Your task to perform on an android device: Open notification settings Image 0: 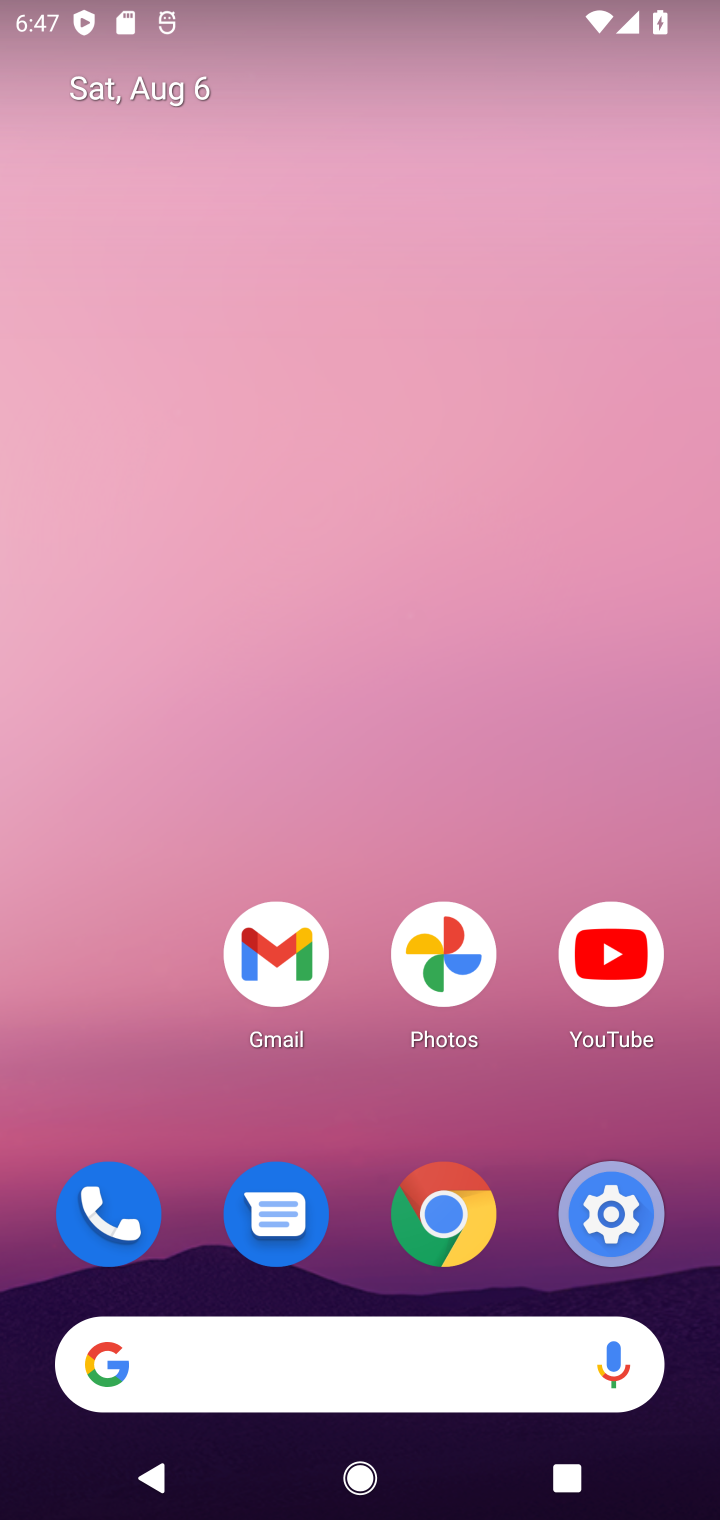
Step 0: drag from (344, 1118) to (392, 2)
Your task to perform on an android device: Open notification settings Image 1: 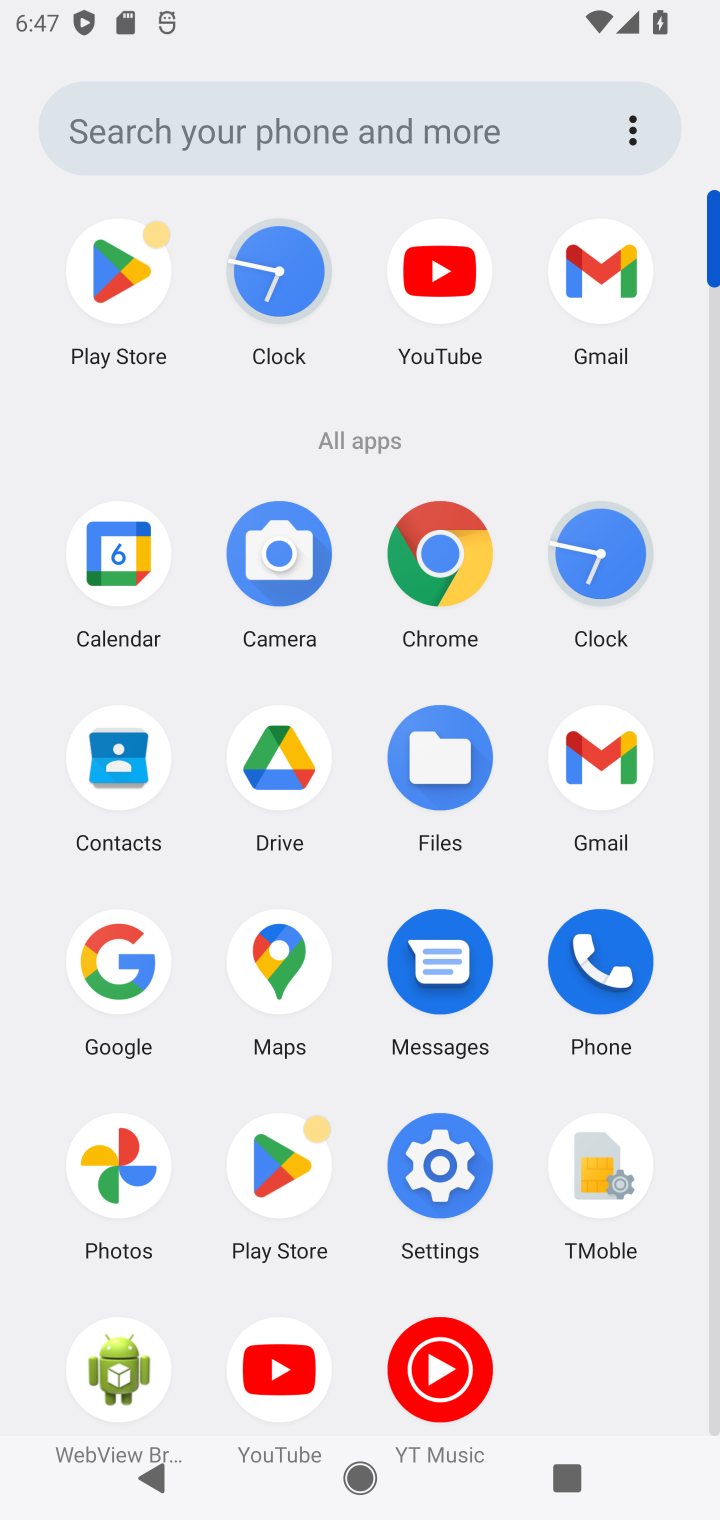
Step 1: click (429, 1152)
Your task to perform on an android device: Open notification settings Image 2: 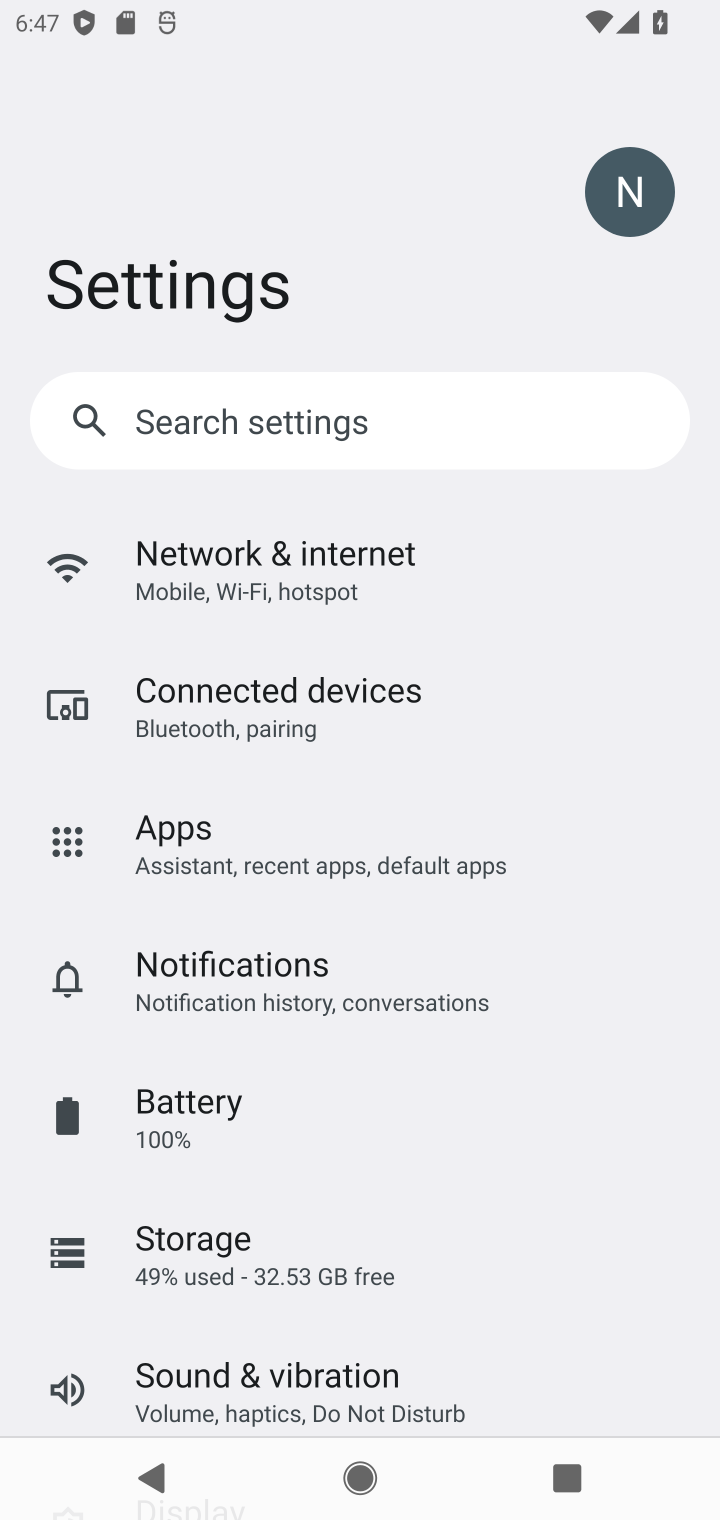
Step 2: click (240, 980)
Your task to perform on an android device: Open notification settings Image 3: 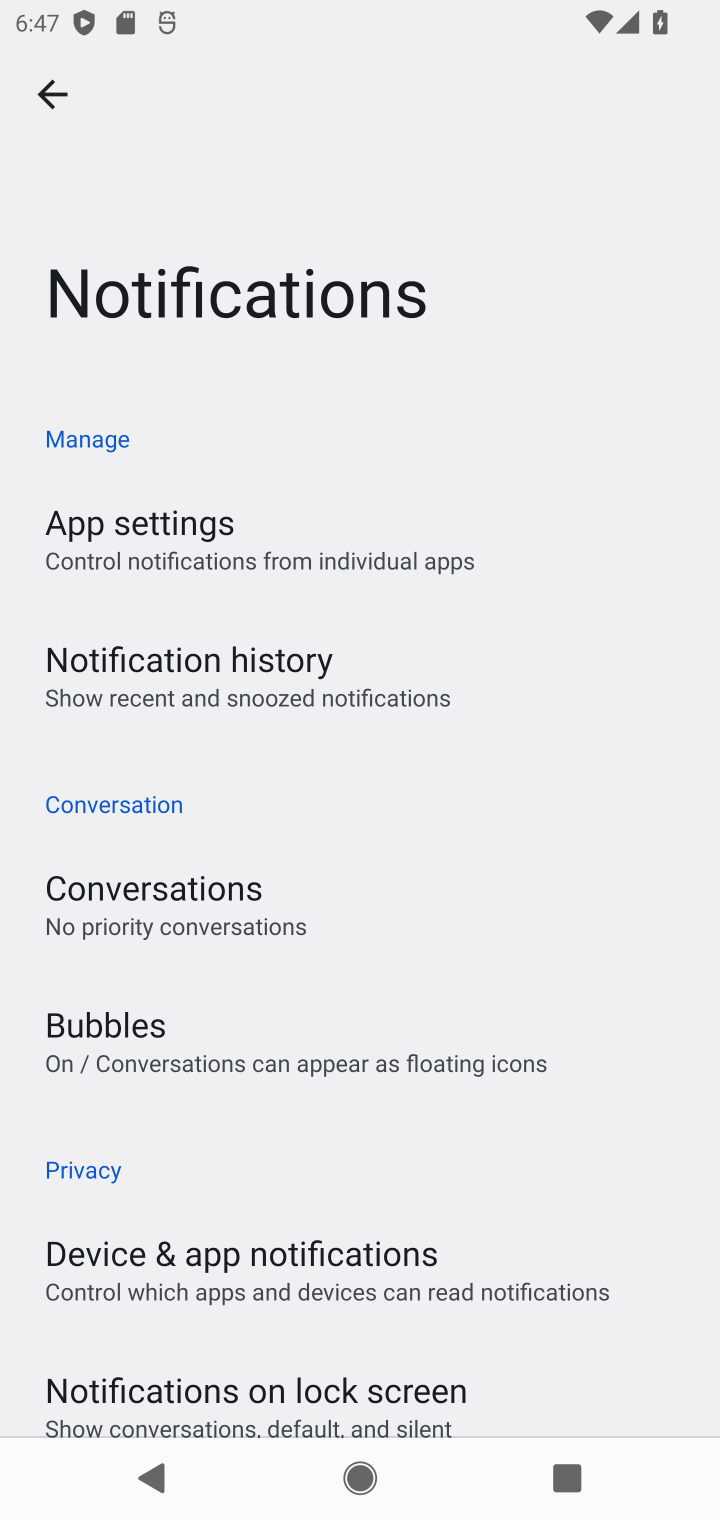
Step 3: task complete